Your task to perform on an android device: Open the web browser Image 0: 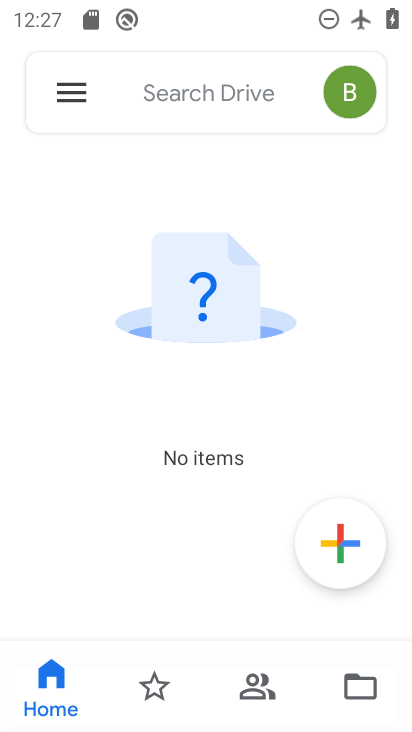
Step 0: press home button
Your task to perform on an android device: Open the web browser Image 1: 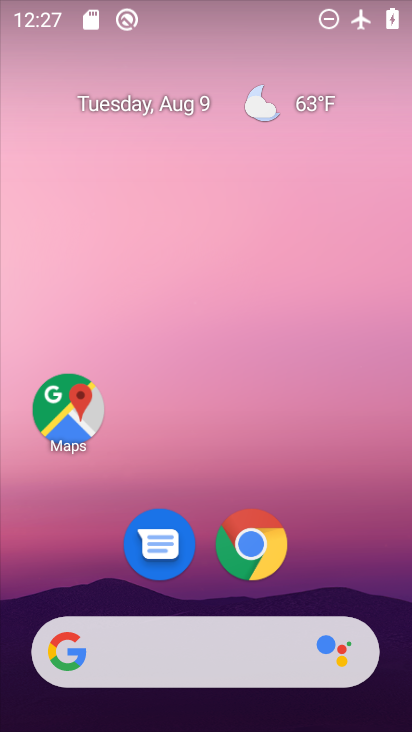
Step 1: click (257, 543)
Your task to perform on an android device: Open the web browser Image 2: 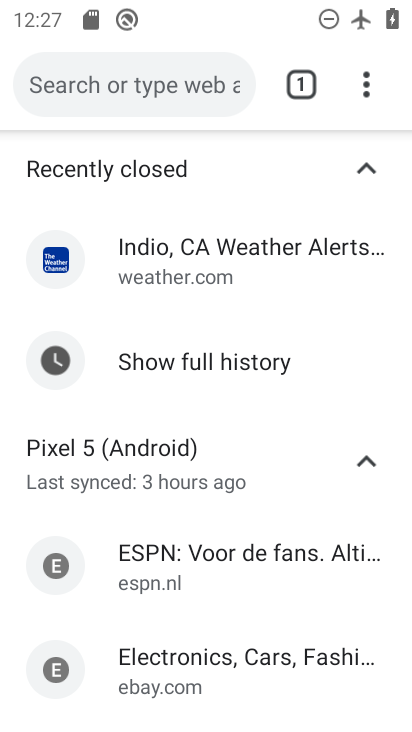
Step 2: task complete